Your task to perform on an android device: open app "LiveIn - Share Your Moment" (install if not already installed) and go to login screen Image 0: 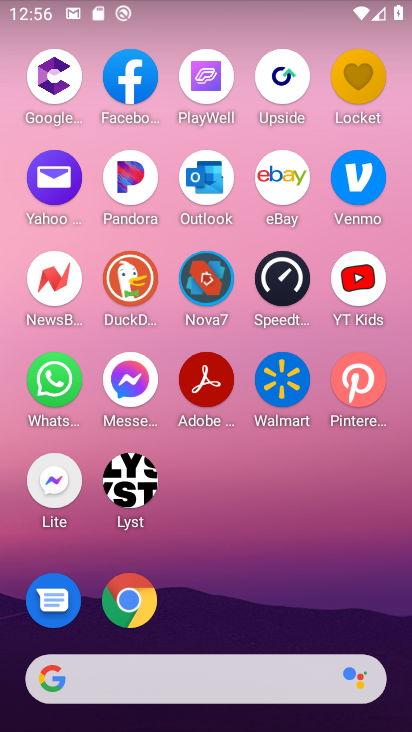
Step 0: click (284, 641)
Your task to perform on an android device: open app "LiveIn - Share Your Moment" (install if not already installed) and go to login screen Image 1: 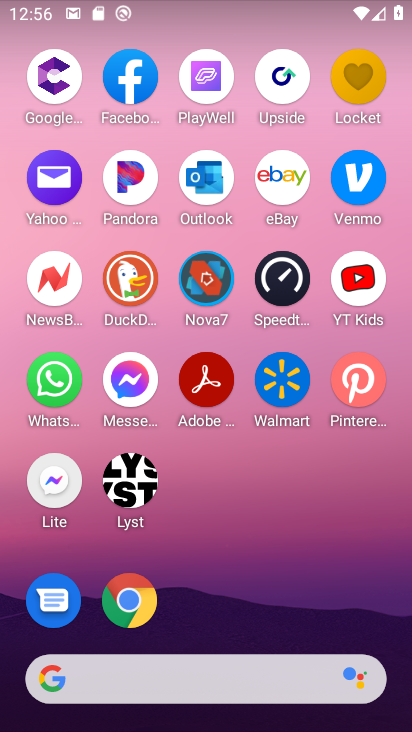
Step 1: click (284, 641)
Your task to perform on an android device: open app "LiveIn - Share Your Moment" (install if not already installed) and go to login screen Image 2: 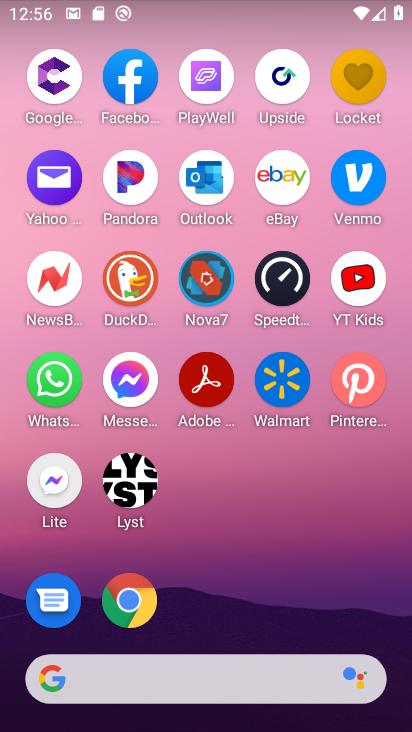
Step 2: drag from (254, 605) to (269, 126)
Your task to perform on an android device: open app "LiveIn - Share Your Moment" (install if not already installed) and go to login screen Image 3: 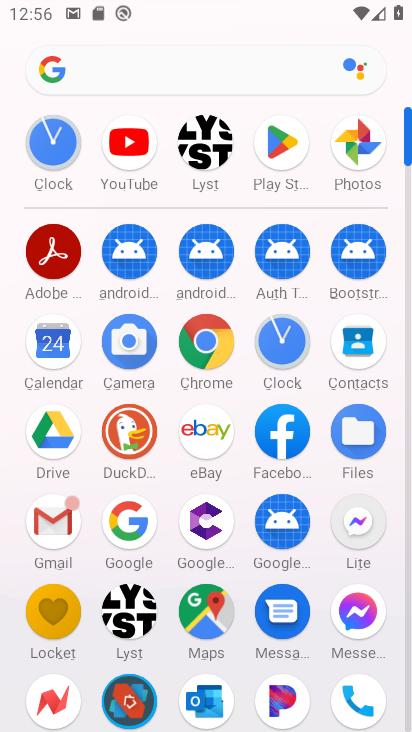
Step 3: click (269, 166)
Your task to perform on an android device: open app "LiveIn - Share Your Moment" (install if not already installed) and go to login screen Image 4: 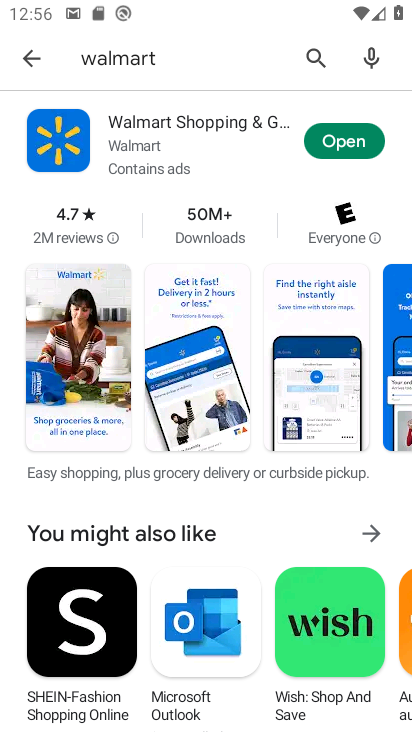
Step 4: click (316, 68)
Your task to perform on an android device: open app "LiveIn - Share Your Moment" (install if not already installed) and go to login screen Image 5: 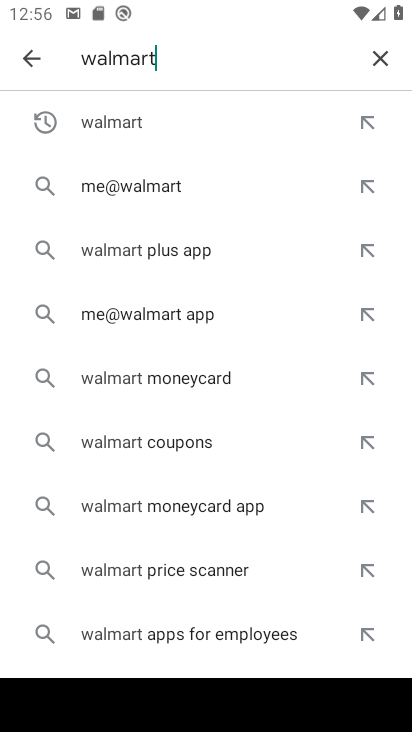
Step 5: click (366, 57)
Your task to perform on an android device: open app "LiveIn - Share Your Moment" (install if not already installed) and go to login screen Image 6: 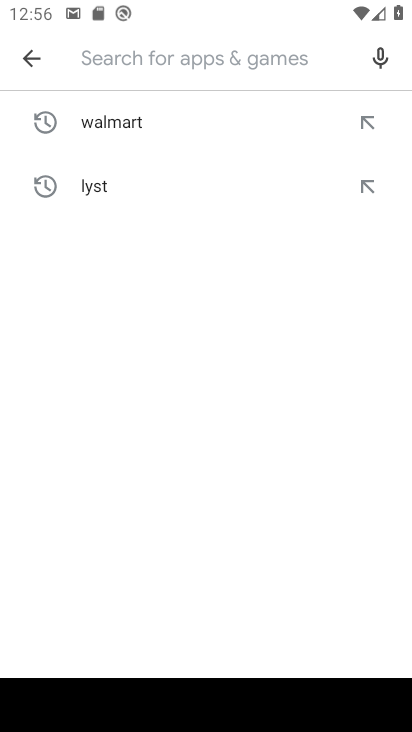
Step 6: type "livein"
Your task to perform on an android device: open app "LiveIn - Share Your Moment" (install if not already installed) and go to login screen Image 7: 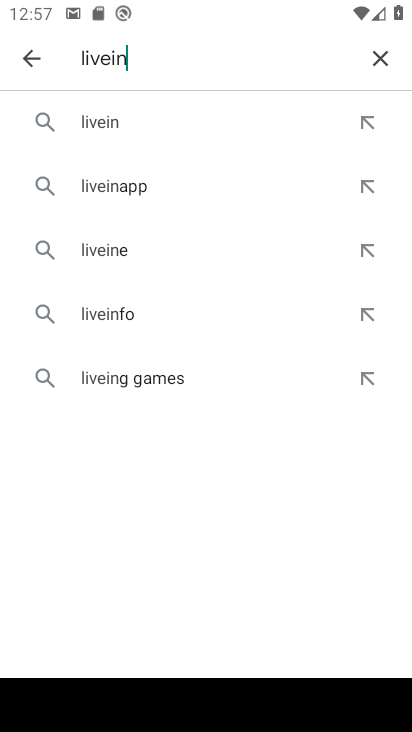
Step 7: click (236, 127)
Your task to perform on an android device: open app "LiveIn - Share Your Moment" (install if not already installed) and go to login screen Image 8: 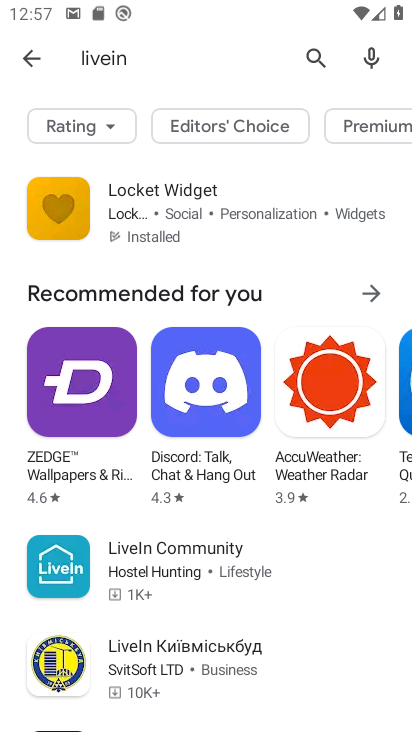
Step 8: click (276, 217)
Your task to perform on an android device: open app "LiveIn - Share Your Moment" (install if not already installed) and go to login screen Image 9: 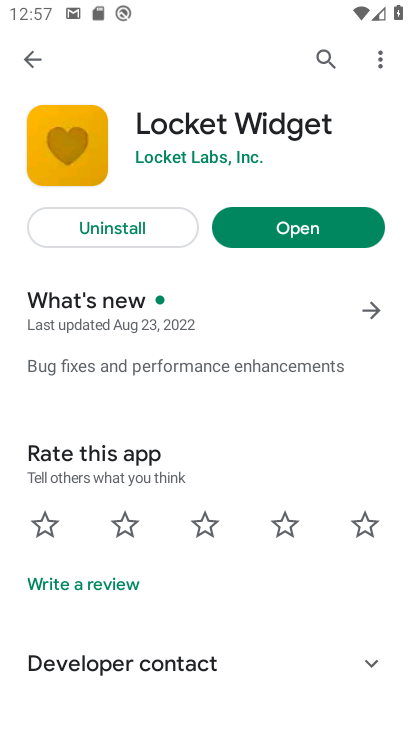
Step 9: click (323, 236)
Your task to perform on an android device: open app "LiveIn - Share Your Moment" (install if not already installed) and go to login screen Image 10: 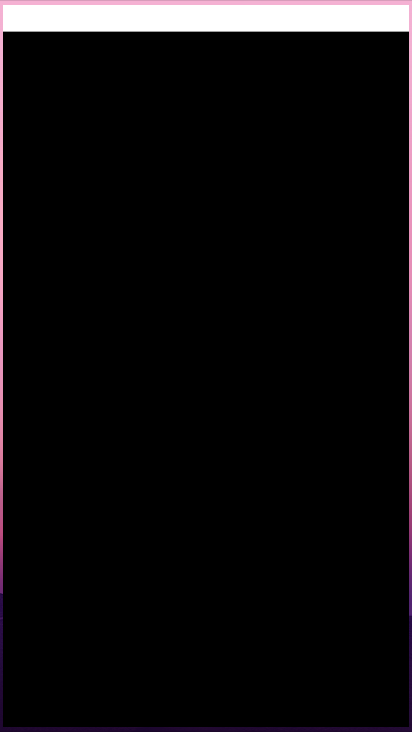
Step 10: task complete